Your task to perform on an android device: open the mobile data screen to see how much data has been used Image 0: 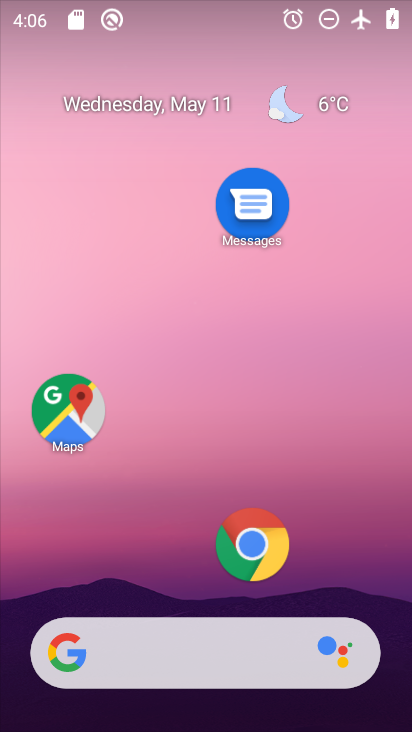
Step 0: drag from (207, 594) to (243, 118)
Your task to perform on an android device: open the mobile data screen to see how much data has been used Image 1: 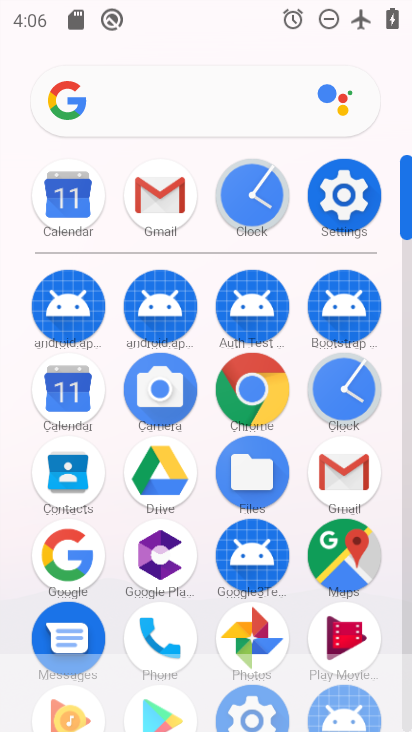
Step 1: click (341, 188)
Your task to perform on an android device: open the mobile data screen to see how much data has been used Image 2: 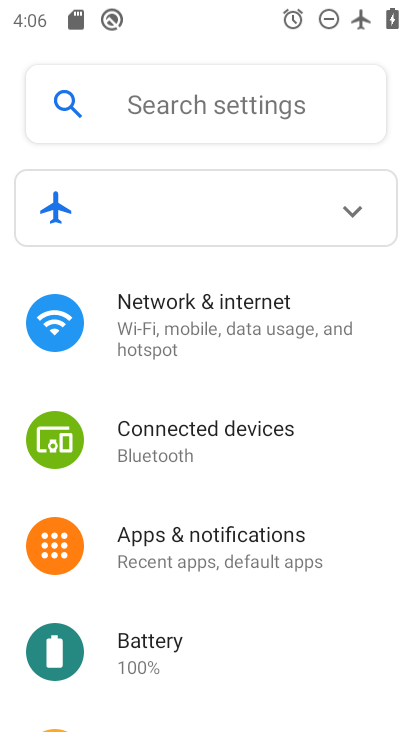
Step 2: click (205, 363)
Your task to perform on an android device: open the mobile data screen to see how much data has been used Image 3: 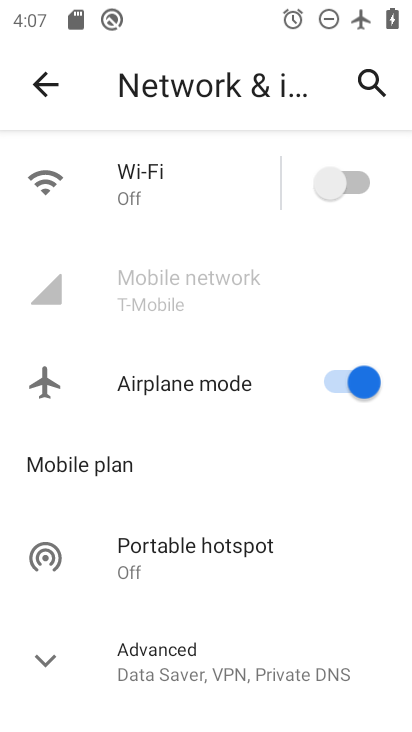
Step 3: click (347, 380)
Your task to perform on an android device: open the mobile data screen to see how much data has been used Image 4: 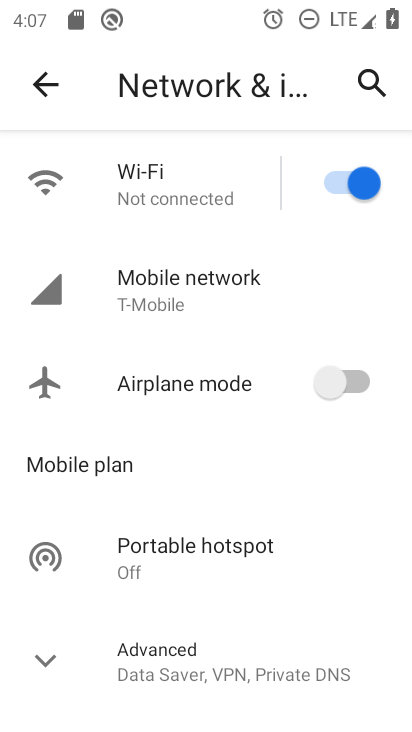
Step 4: click (157, 284)
Your task to perform on an android device: open the mobile data screen to see how much data has been used Image 5: 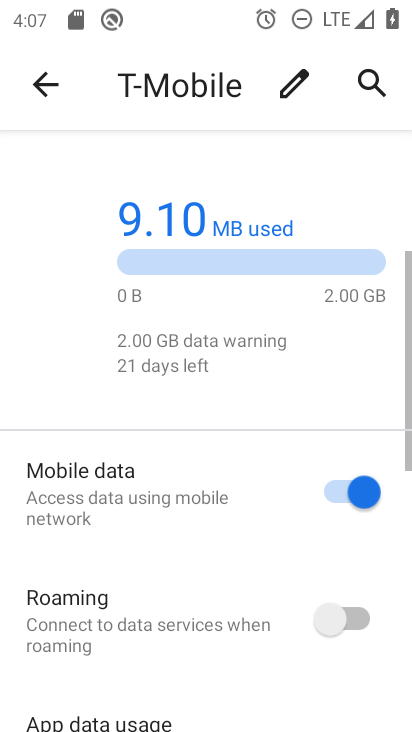
Step 5: drag from (176, 598) to (295, 157)
Your task to perform on an android device: open the mobile data screen to see how much data has been used Image 6: 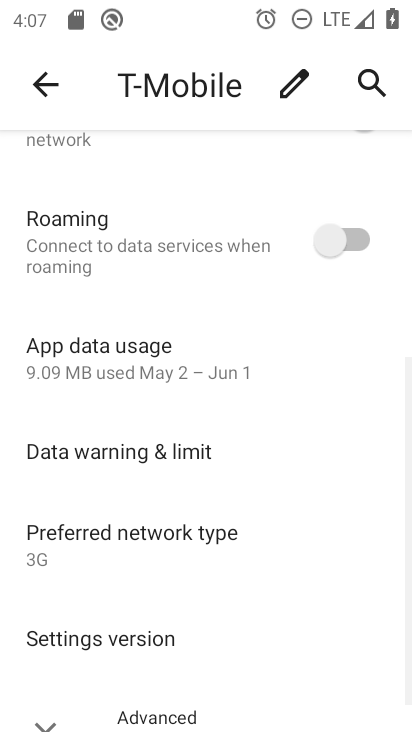
Step 6: click (131, 386)
Your task to perform on an android device: open the mobile data screen to see how much data has been used Image 7: 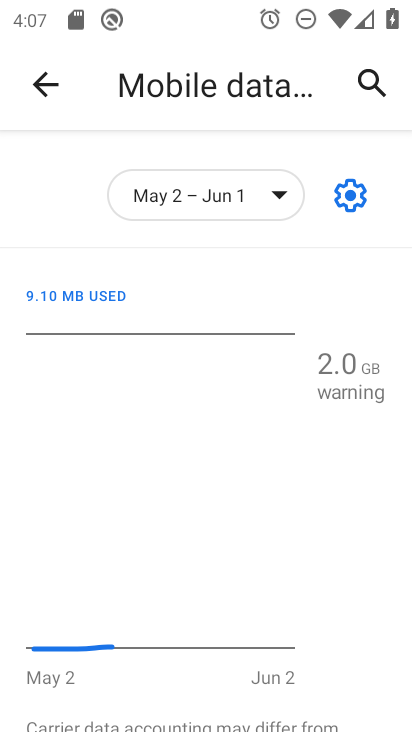
Step 7: task complete